Your task to perform on an android device: Open privacy settings Image 0: 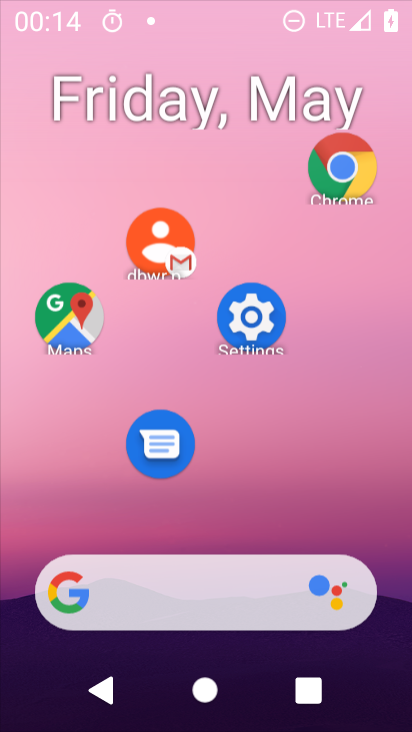
Step 0: click (198, 240)
Your task to perform on an android device: Open privacy settings Image 1: 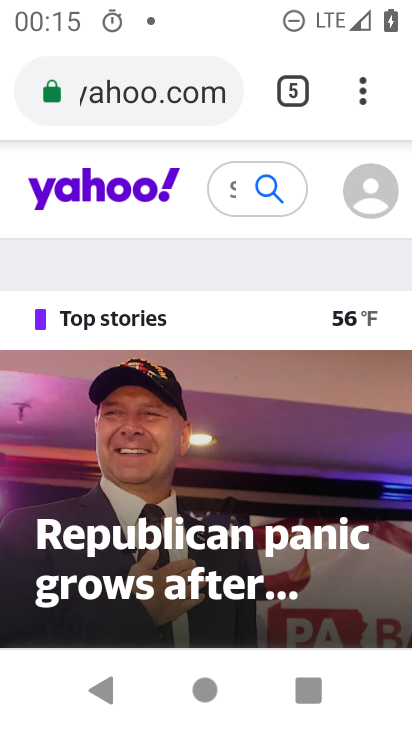
Step 1: press home button
Your task to perform on an android device: Open privacy settings Image 2: 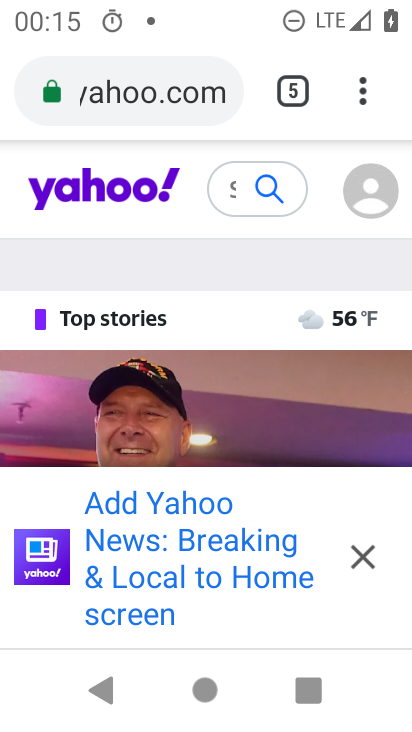
Step 2: drag from (226, 280) to (230, 212)
Your task to perform on an android device: Open privacy settings Image 3: 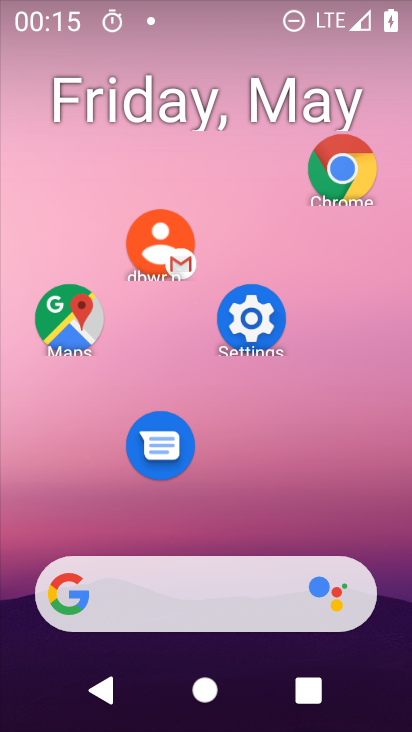
Step 3: click (256, 290)
Your task to perform on an android device: Open privacy settings Image 4: 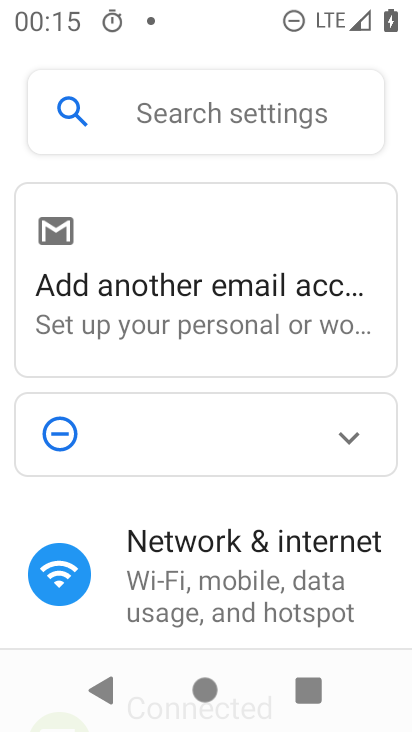
Step 4: drag from (278, 464) to (295, 136)
Your task to perform on an android device: Open privacy settings Image 5: 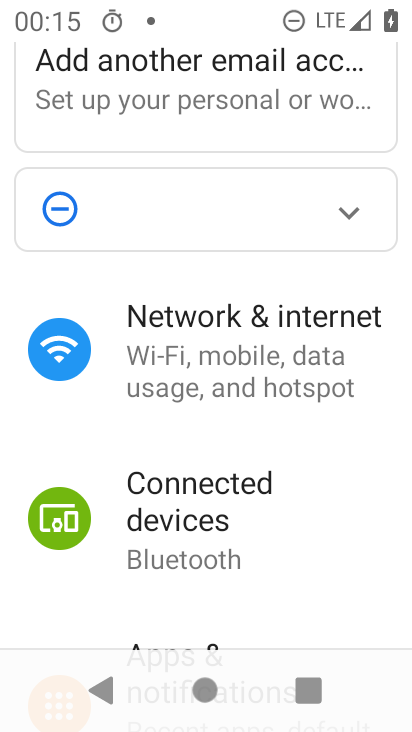
Step 5: drag from (132, 506) to (213, 94)
Your task to perform on an android device: Open privacy settings Image 6: 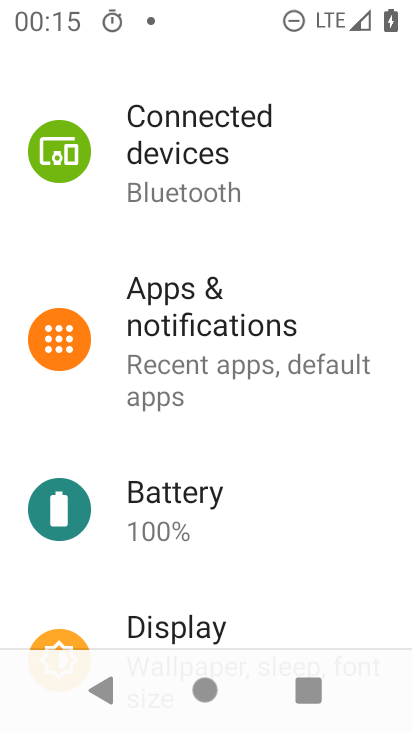
Step 6: drag from (234, 568) to (245, 97)
Your task to perform on an android device: Open privacy settings Image 7: 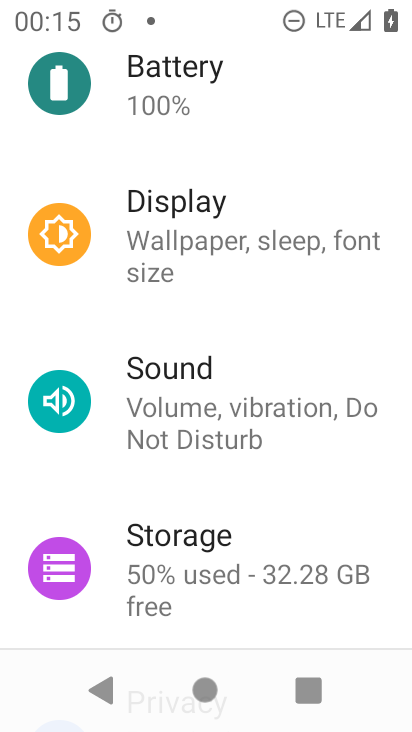
Step 7: drag from (215, 522) to (226, 204)
Your task to perform on an android device: Open privacy settings Image 8: 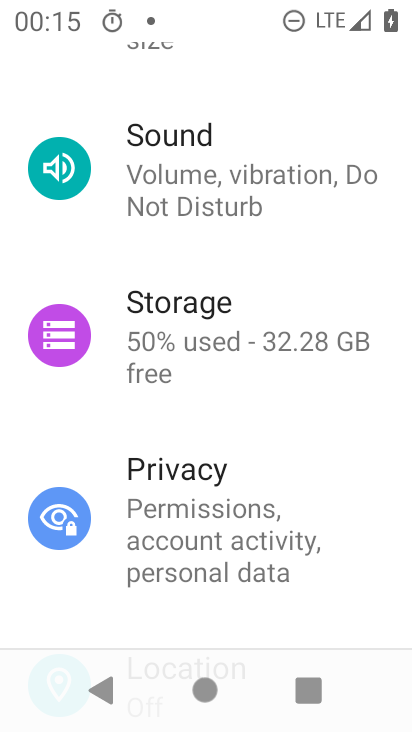
Step 8: click (200, 518)
Your task to perform on an android device: Open privacy settings Image 9: 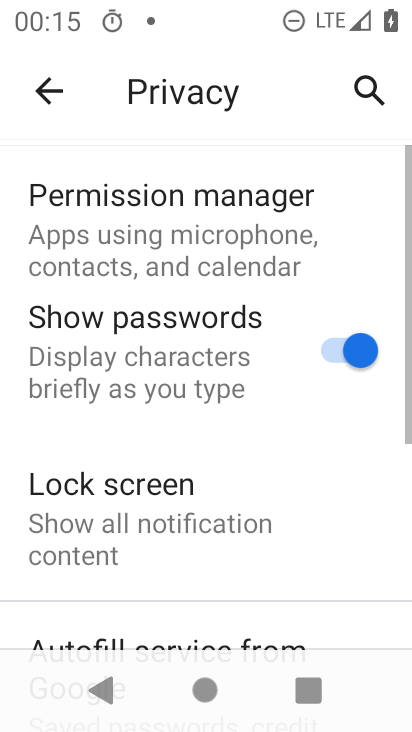
Step 9: task complete